Your task to perform on an android device: Open Google Image 0: 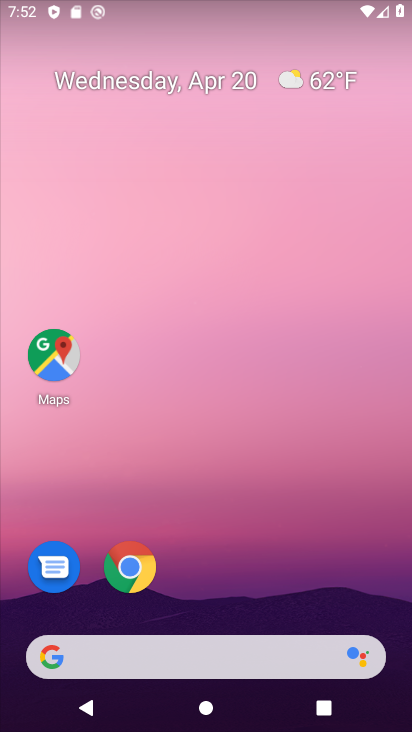
Step 0: drag from (386, 593) to (384, 13)
Your task to perform on an android device: Open Google Image 1: 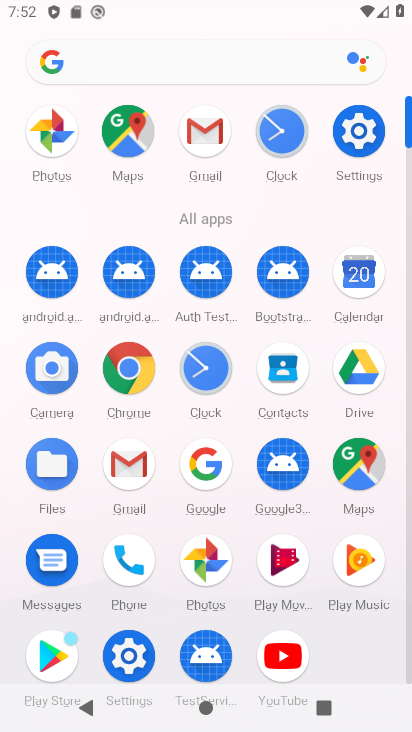
Step 1: click (199, 471)
Your task to perform on an android device: Open Google Image 2: 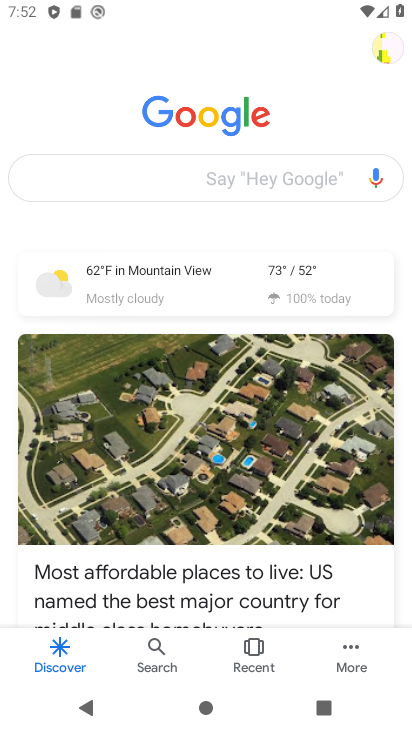
Step 2: task complete